Your task to perform on an android device: change the clock display to digital Image 0: 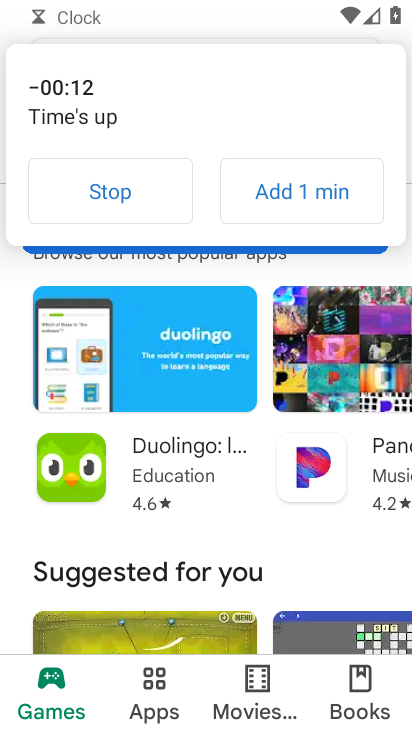
Step 0: press home button
Your task to perform on an android device: change the clock display to digital Image 1: 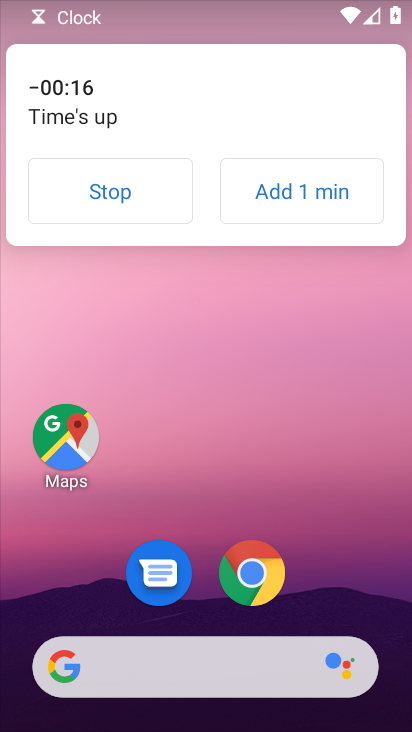
Step 1: click (142, 190)
Your task to perform on an android device: change the clock display to digital Image 2: 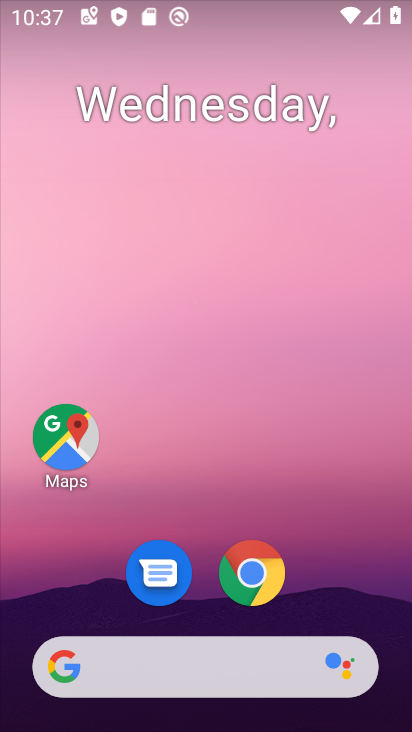
Step 2: drag from (160, 634) to (205, 268)
Your task to perform on an android device: change the clock display to digital Image 3: 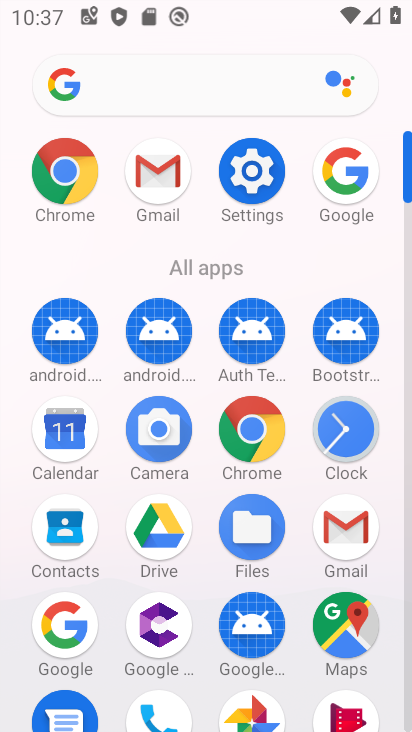
Step 3: click (352, 428)
Your task to perform on an android device: change the clock display to digital Image 4: 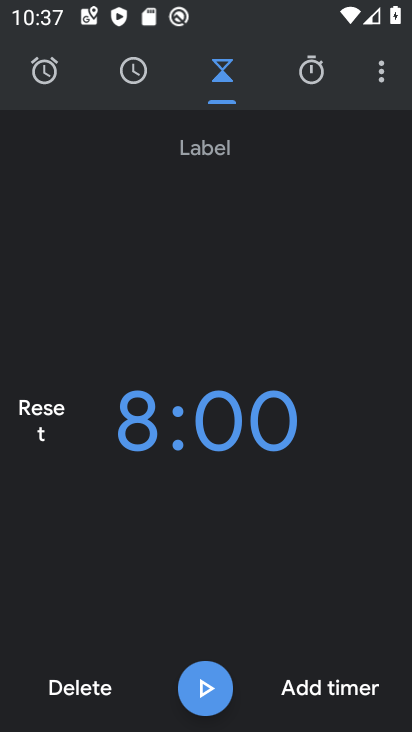
Step 4: click (382, 74)
Your task to perform on an android device: change the clock display to digital Image 5: 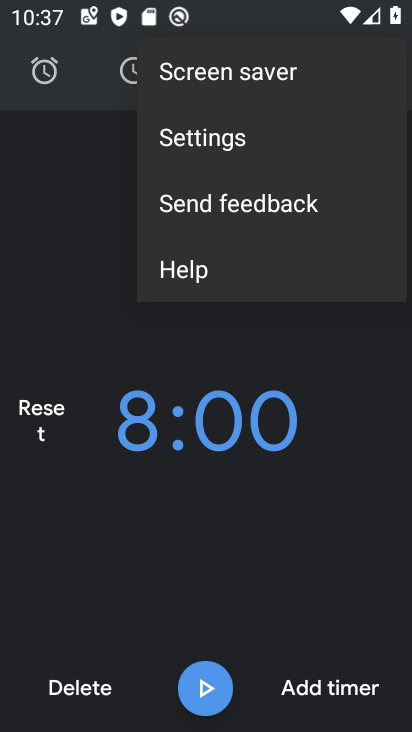
Step 5: click (226, 140)
Your task to perform on an android device: change the clock display to digital Image 6: 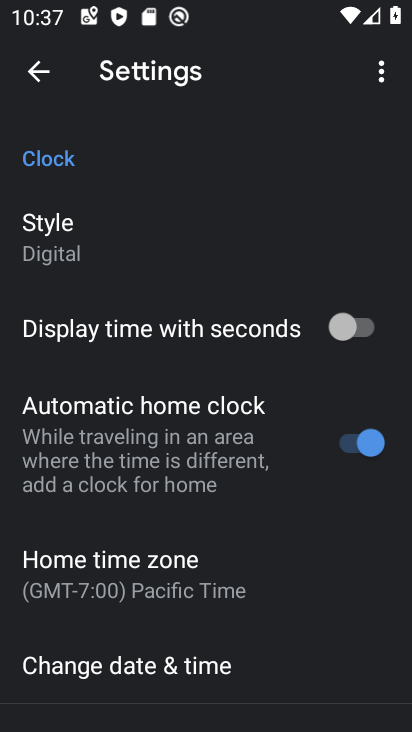
Step 6: task complete